Your task to perform on an android device: find which apps use the phone's location Image 0: 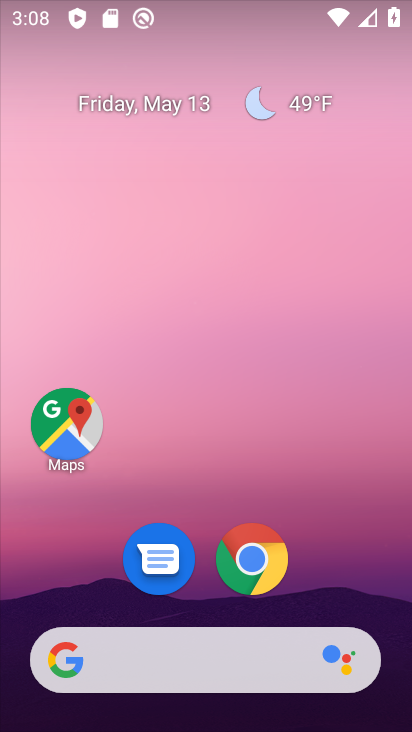
Step 0: drag from (394, 671) to (308, 107)
Your task to perform on an android device: find which apps use the phone's location Image 1: 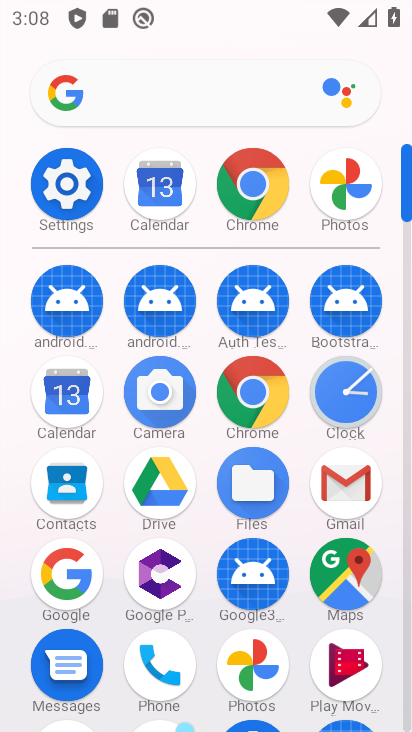
Step 1: click (405, 707)
Your task to perform on an android device: find which apps use the phone's location Image 2: 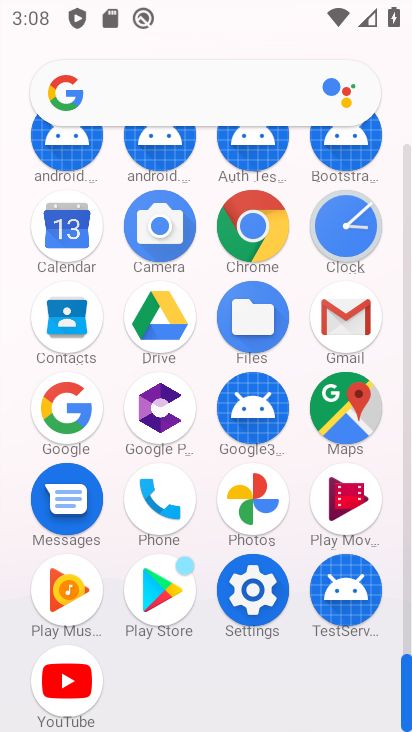
Step 2: click (250, 586)
Your task to perform on an android device: find which apps use the phone's location Image 3: 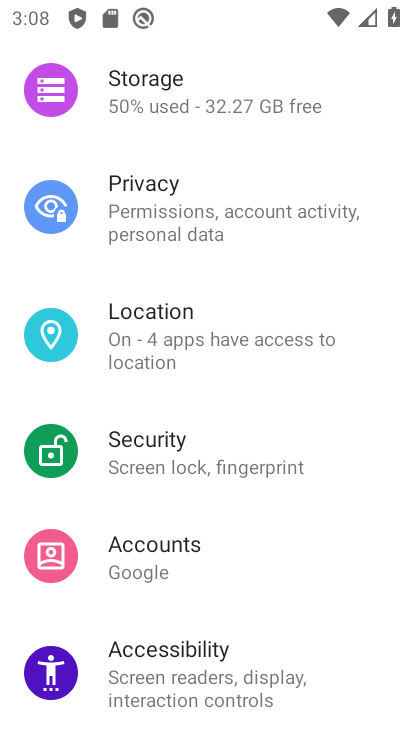
Step 3: click (161, 343)
Your task to perform on an android device: find which apps use the phone's location Image 4: 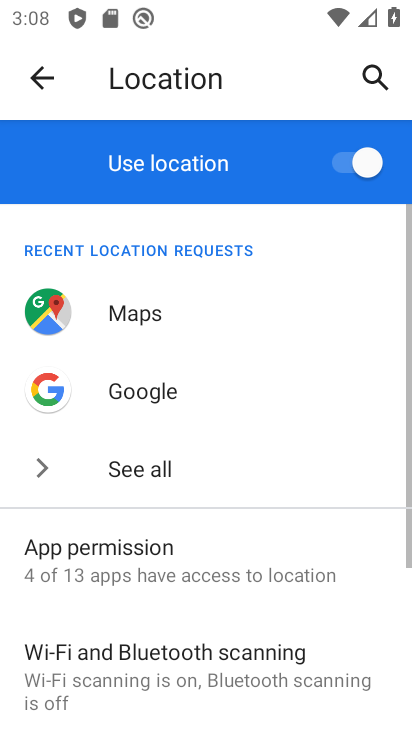
Step 4: click (111, 547)
Your task to perform on an android device: find which apps use the phone's location Image 5: 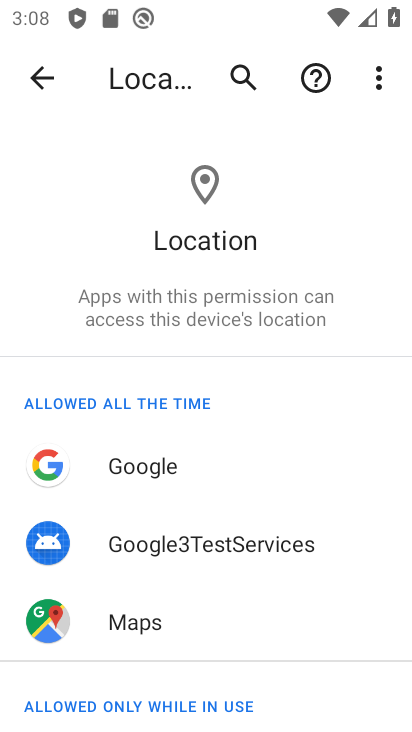
Step 5: drag from (265, 648) to (280, 185)
Your task to perform on an android device: find which apps use the phone's location Image 6: 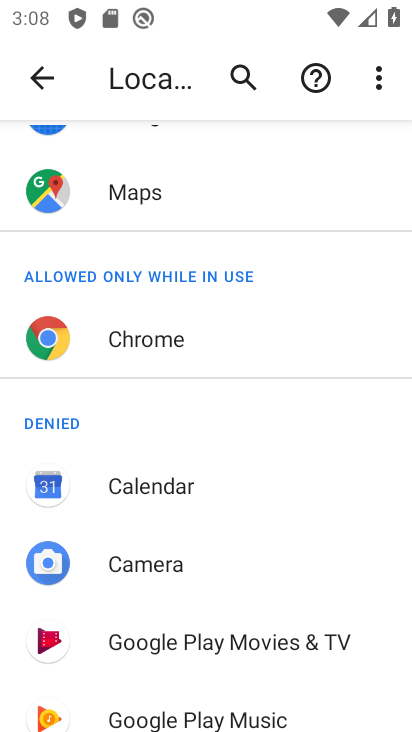
Step 6: drag from (286, 705) to (186, 123)
Your task to perform on an android device: find which apps use the phone's location Image 7: 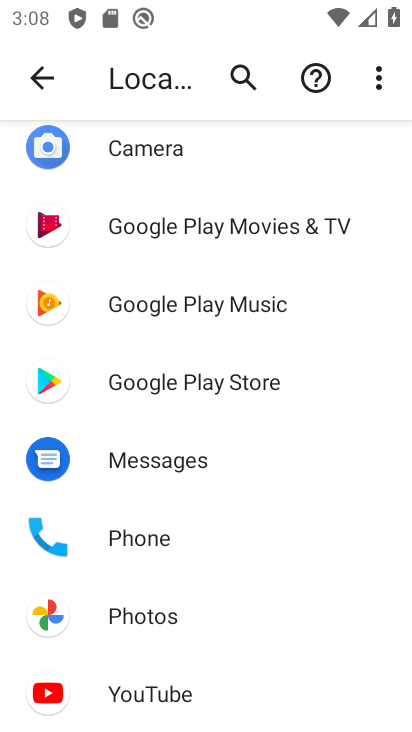
Step 7: click (130, 619)
Your task to perform on an android device: find which apps use the phone's location Image 8: 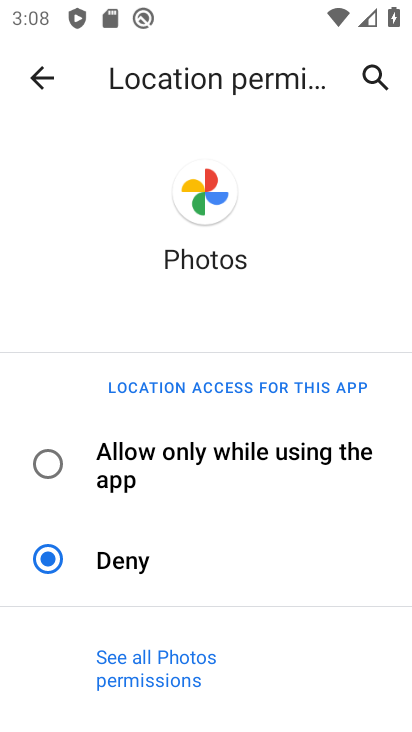
Step 8: task complete